Your task to perform on an android device: turn off location history Image 0: 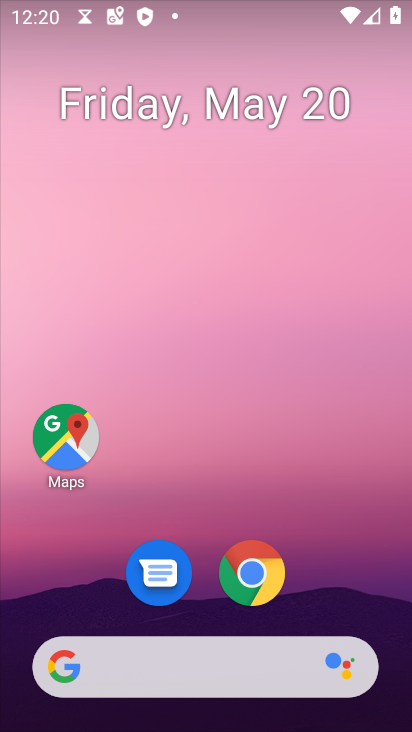
Step 0: drag from (326, 599) to (320, 35)
Your task to perform on an android device: turn off location history Image 1: 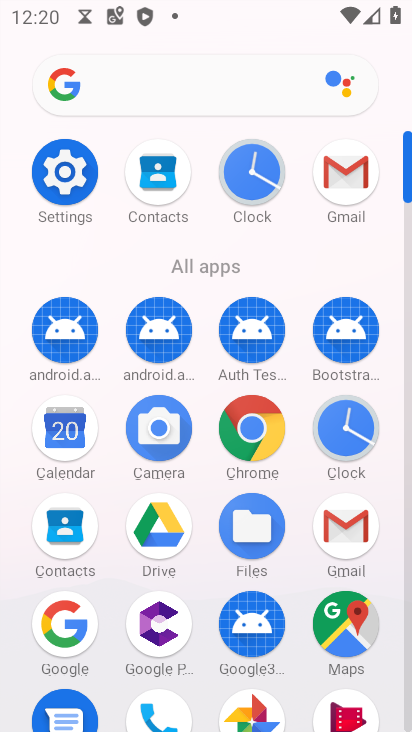
Step 1: click (54, 172)
Your task to perform on an android device: turn off location history Image 2: 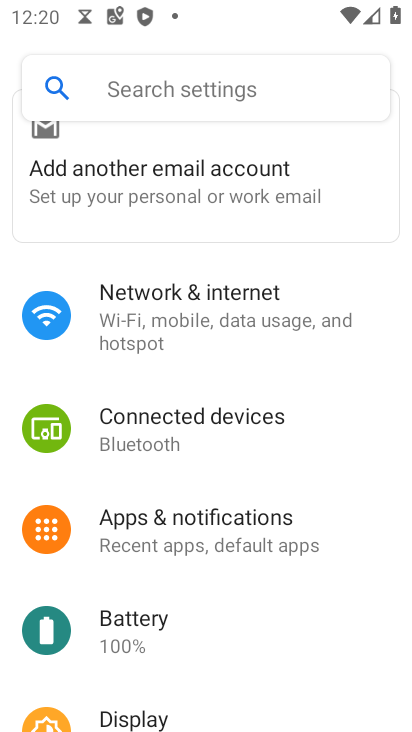
Step 2: drag from (231, 621) to (250, 245)
Your task to perform on an android device: turn off location history Image 3: 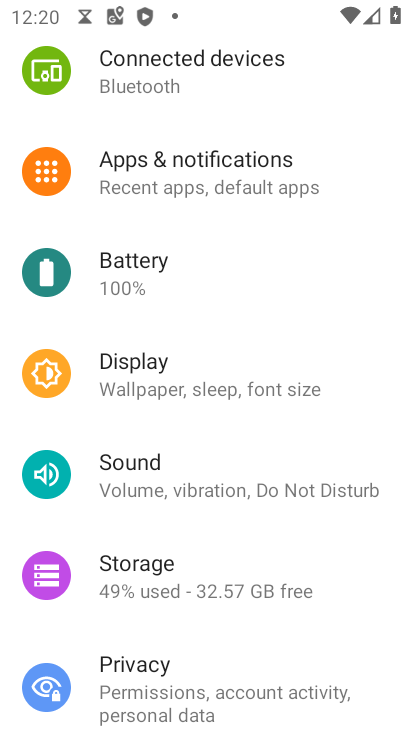
Step 3: drag from (284, 612) to (270, 286)
Your task to perform on an android device: turn off location history Image 4: 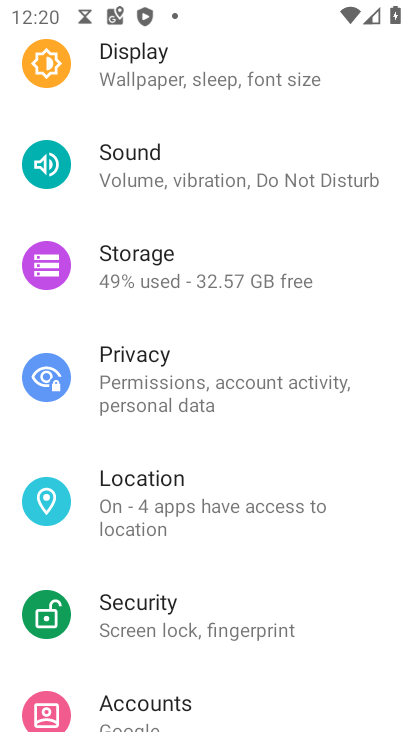
Step 4: click (160, 512)
Your task to perform on an android device: turn off location history Image 5: 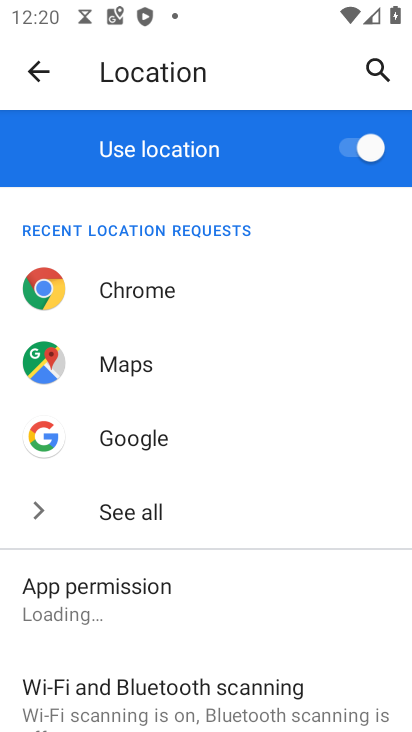
Step 5: drag from (210, 626) to (213, 274)
Your task to perform on an android device: turn off location history Image 6: 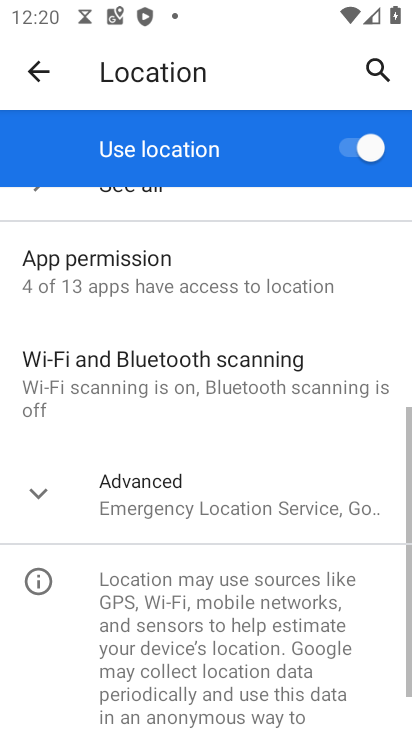
Step 6: click (159, 507)
Your task to perform on an android device: turn off location history Image 7: 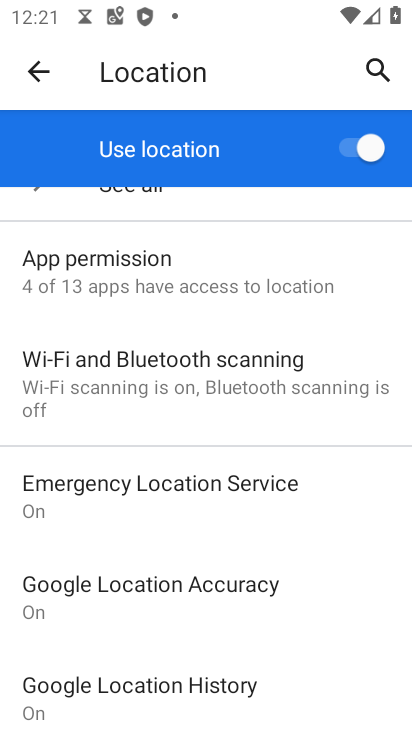
Step 7: click (218, 689)
Your task to perform on an android device: turn off location history Image 8: 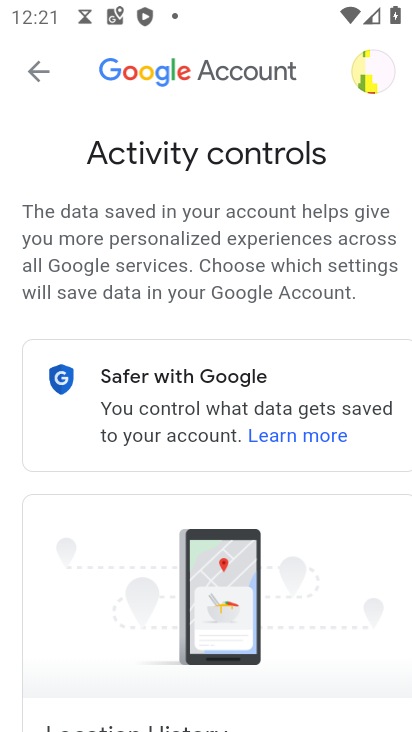
Step 8: drag from (205, 662) to (205, 170)
Your task to perform on an android device: turn off location history Image 9: 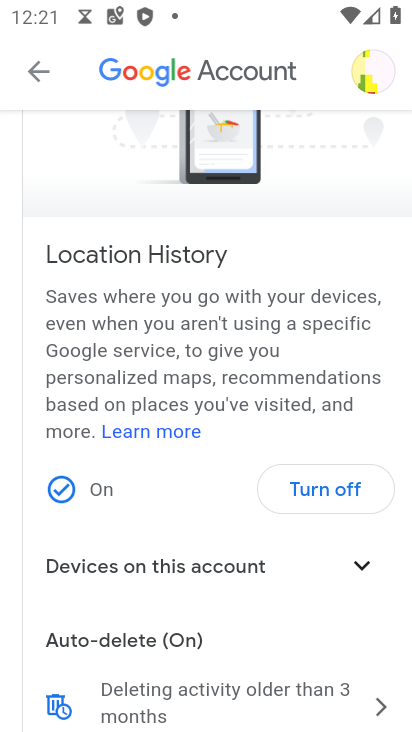
Step 9: click (310, 487)
Your task to perform on an android device: turn off location history Image 10: 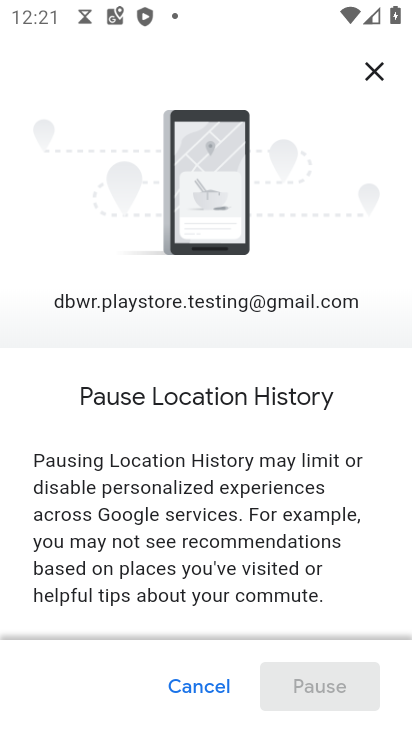
Step 10: drag from (311, 566) to (283, 115)
Your task to perform on an android device: turn off location history Image 11: 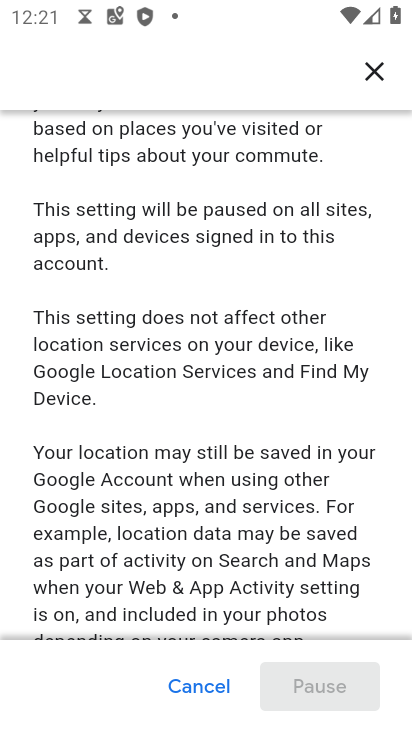
Step 11: drag from (288, 564) to (255, 192)
Your task to perform on an android device: turn off location history Image 12: 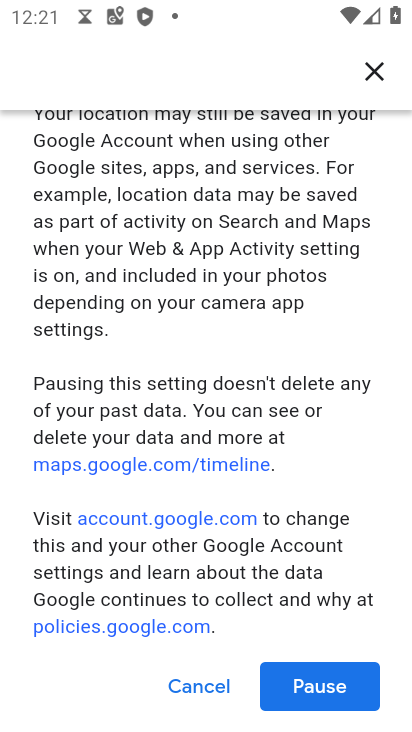
Step 12: click (335, 684)
Your task to perform on an android device: turn off location history Image 13: 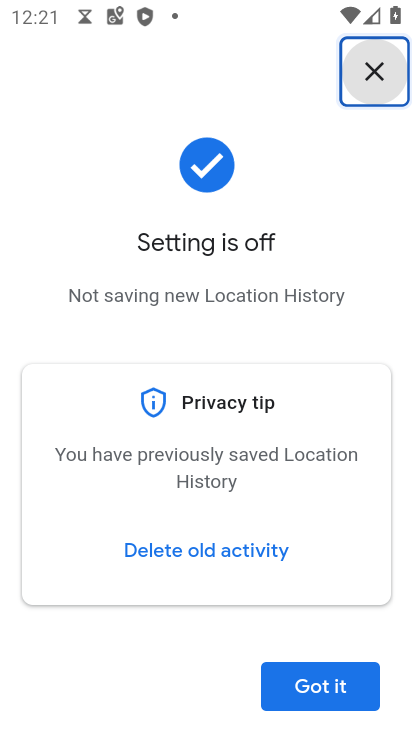
Step 13: task complete